Your task to perform on an android device: see creations saved in the google photos Image 0: 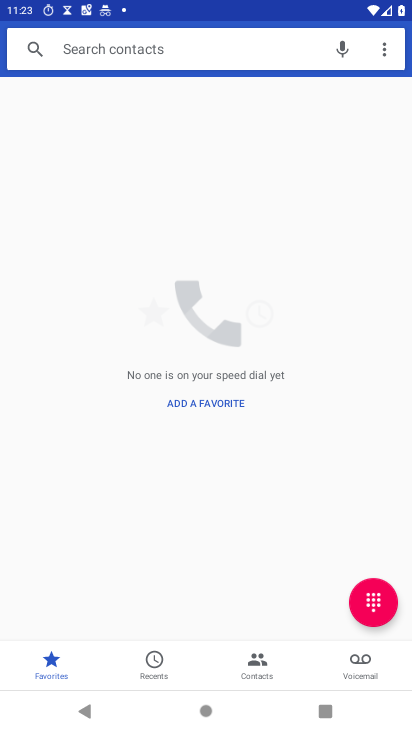
Step 0: press home button
Your task to perform on an android device: see creations saved in the google photos Image 1: 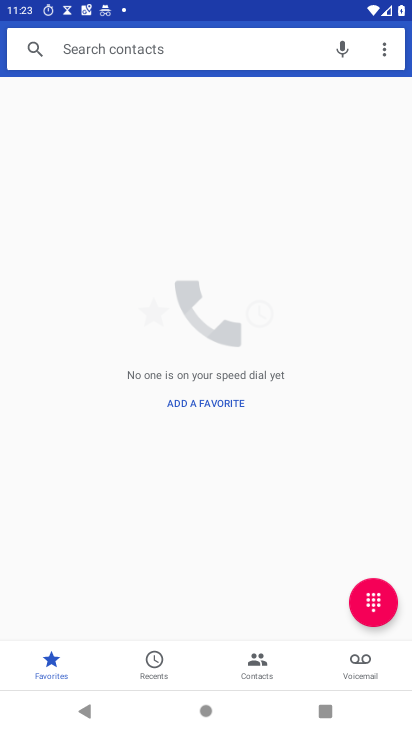
Step 1: press home button
Your task to perform on an android device: see creations saved in the google photos Image 2: 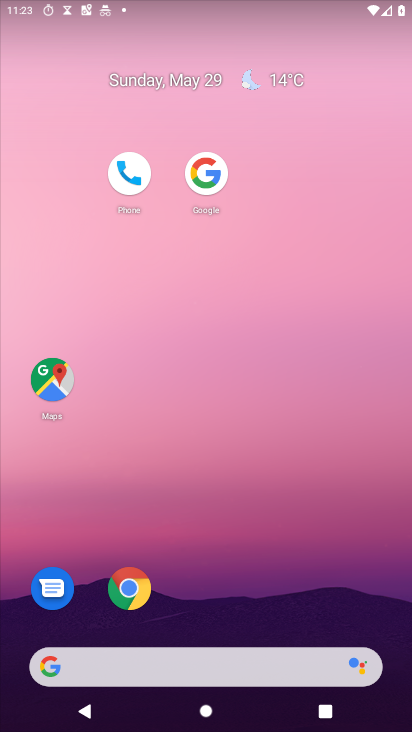
Step 2: drag from (266, 671) to (162, 248)
Your task to perform on an android device: see creations saved in the google photos Image 3: 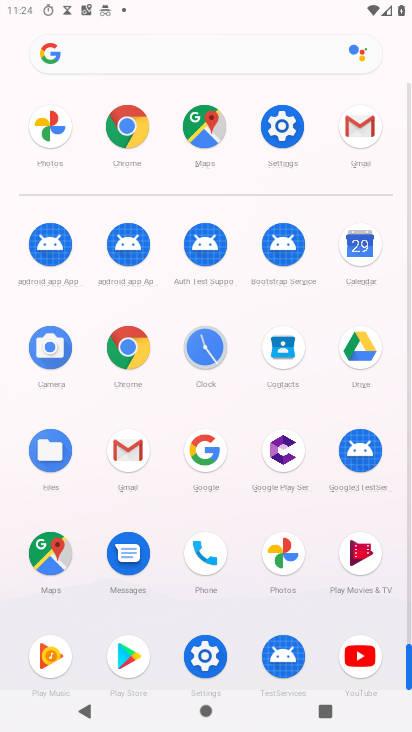
Step 3: click (284, 549)
Your task to perform on an android device: see creations saved in the google photos Image 4: 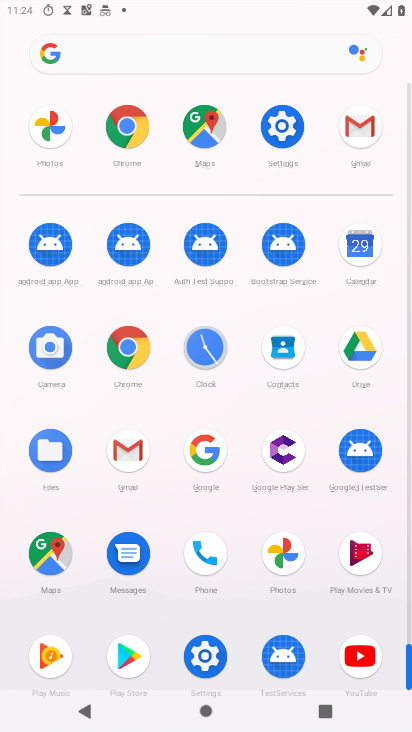
Step 4: click (283, 548)
Your task to perform on an android device: see creations saved in the google photos Image 5: 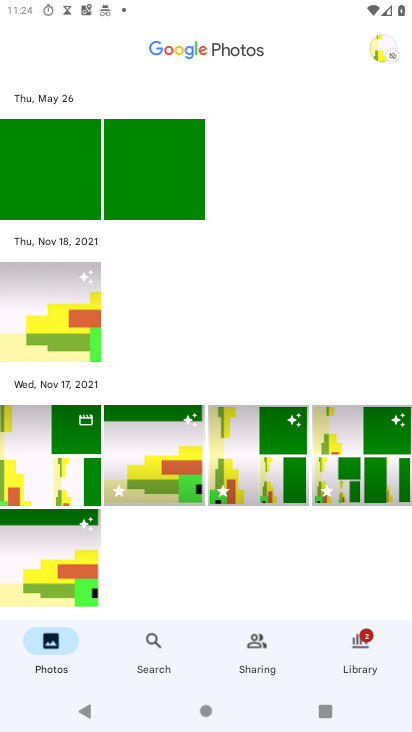
Step 5: task complete